Your task to perform on an android device: What's the price of the TCL TV? Image 0: 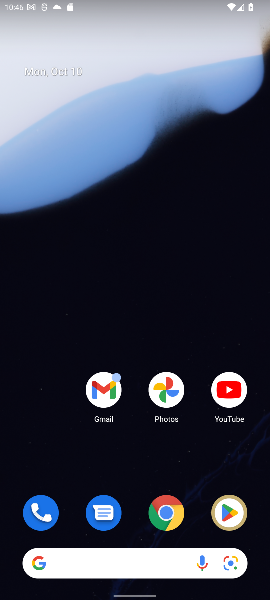
Step 0: click (120, 566)
Your task to perform on an android device: What's the price of the TCL TV? Image 1: 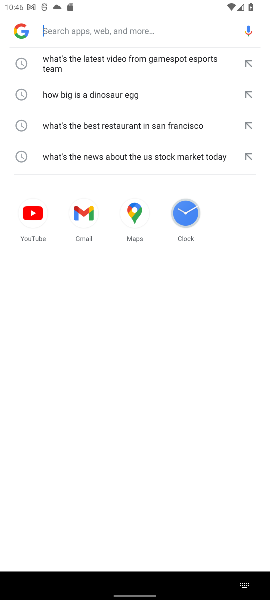
Step 1: type "What's the price of the TCL TV?"
Your task to perform on an android device: What's the price of the TCL TV? Image 2: 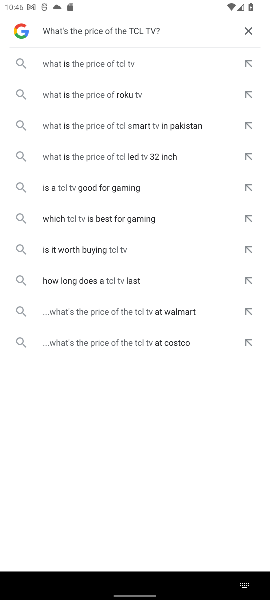
Step 2: click (76, 68)
Your task to perform on an android device: What's the price of the TCL TV? Image 3: 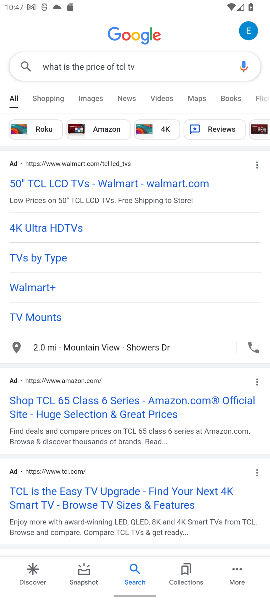
Step 3: task complete